Your task to perform on an android device: Add "dell xps" to the cart on amazon.com Image 0: 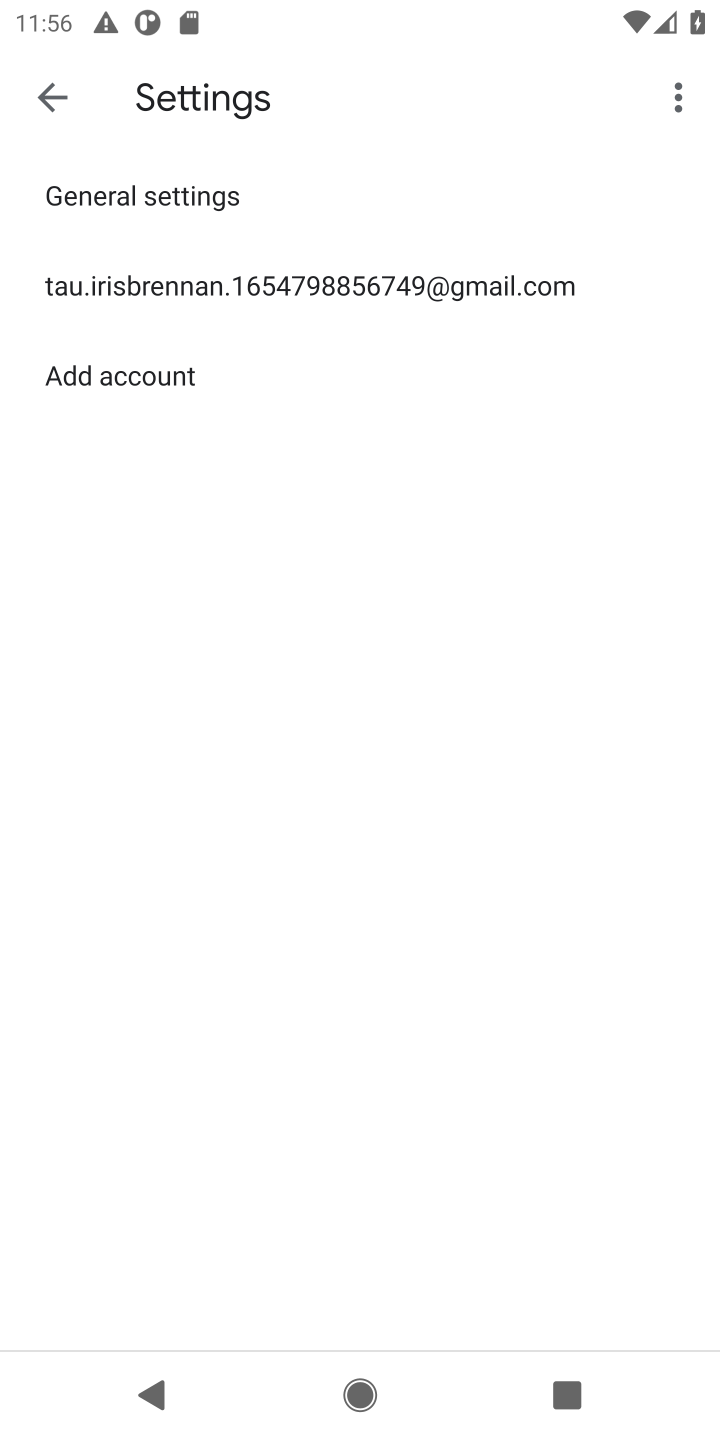
Step 0: press back button
Your task to perform on an android device: Add "dell xps" to the cart on amazon.com Image 1: 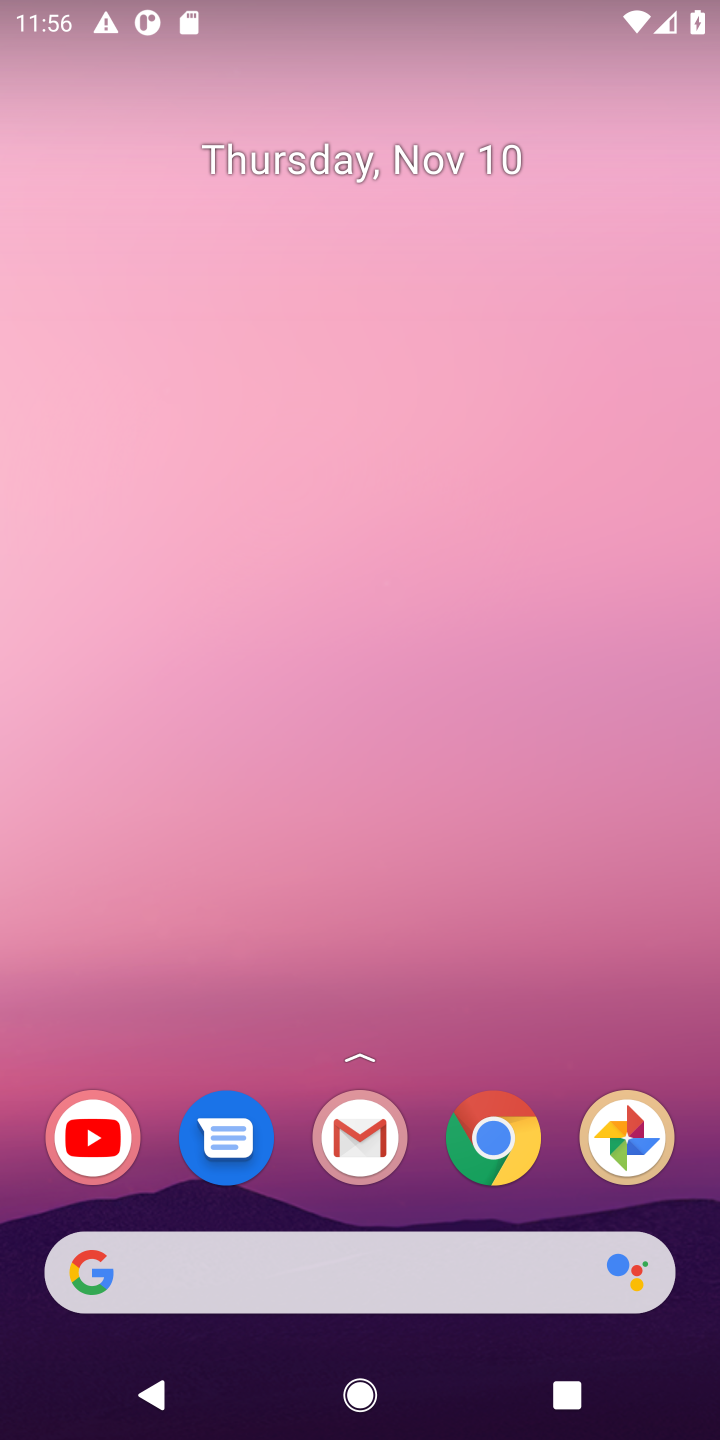
Step 1: click (470, 1137)
Your task to perform on an android device: Add "dell xps" to the cart on amazon.com Image 2: 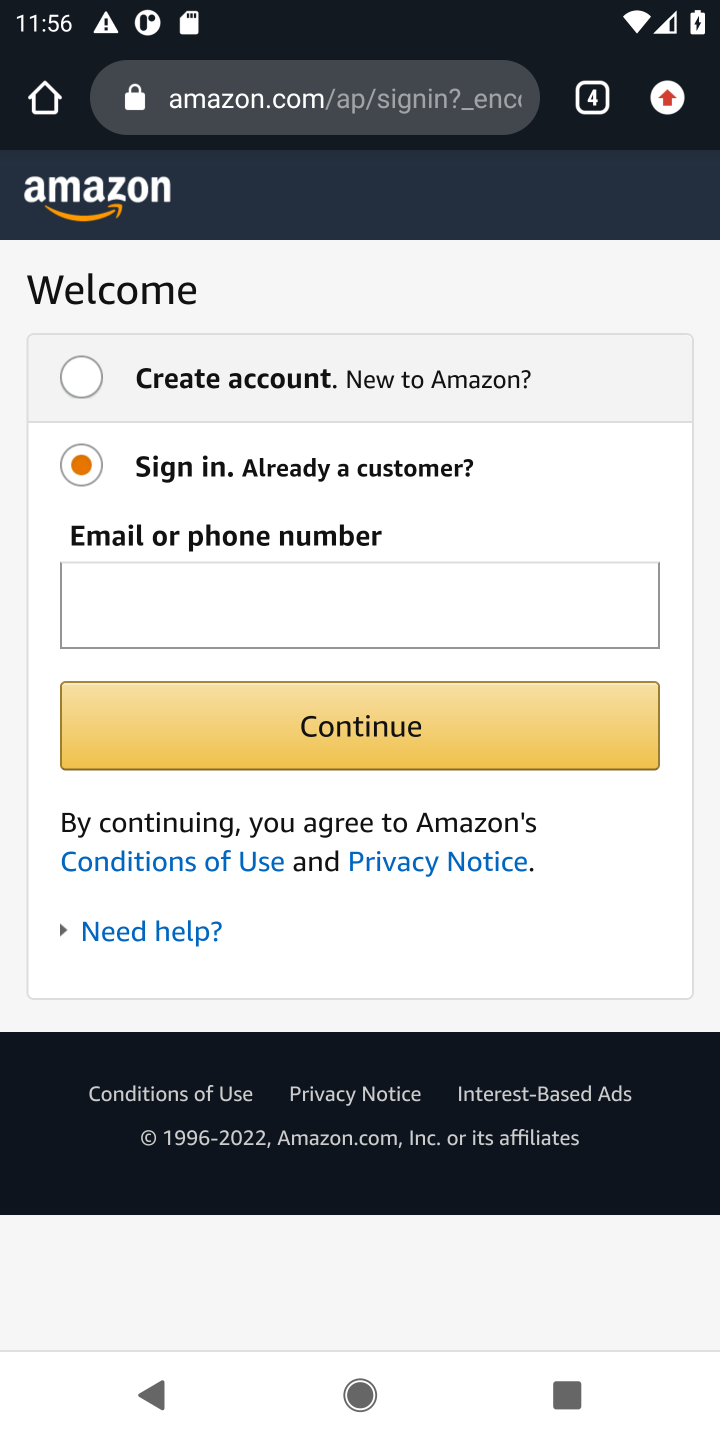
Step 2: press back button
Your task to perform on an android device: Add "dell xps" to the cart on amazon.com Image 3: 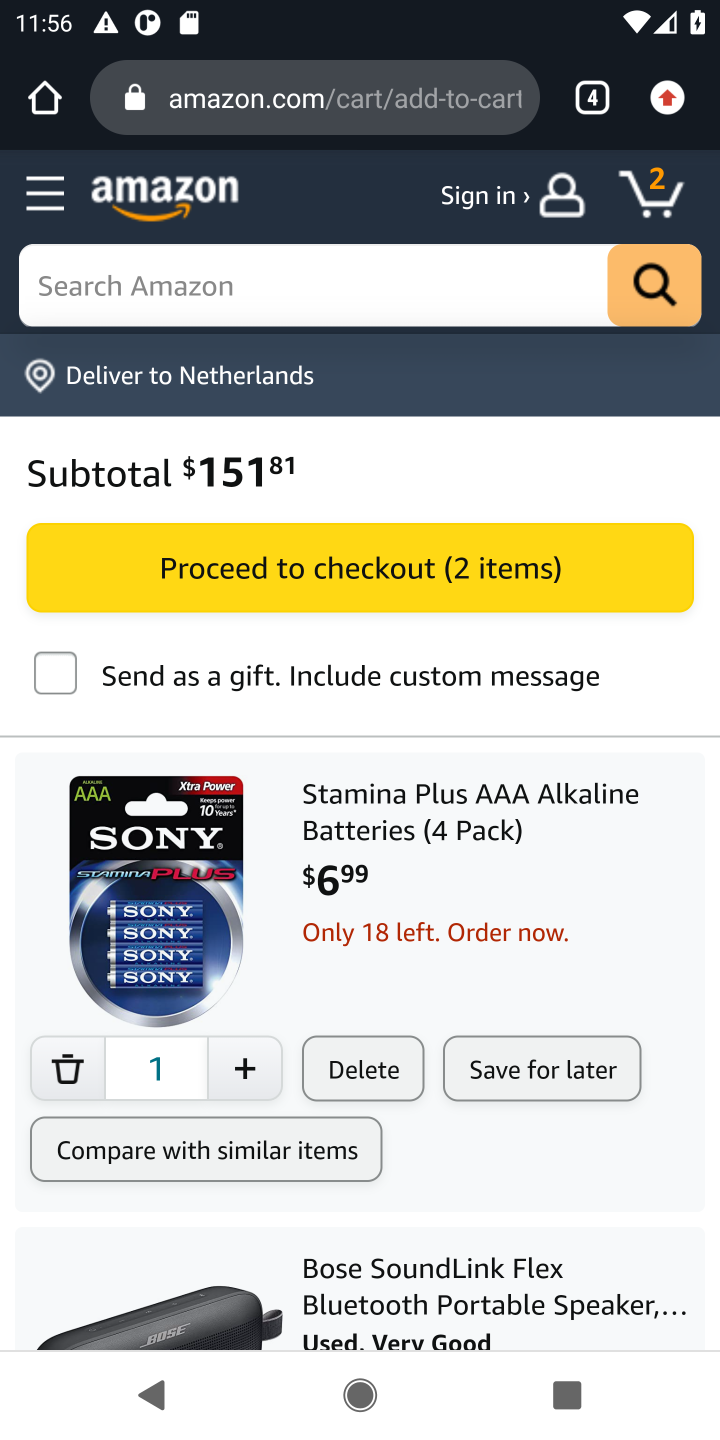
Step 3: click (220, 284)
Your task to perform on an android device: Add "dell xps" to the cart on amazon.com Image 4: 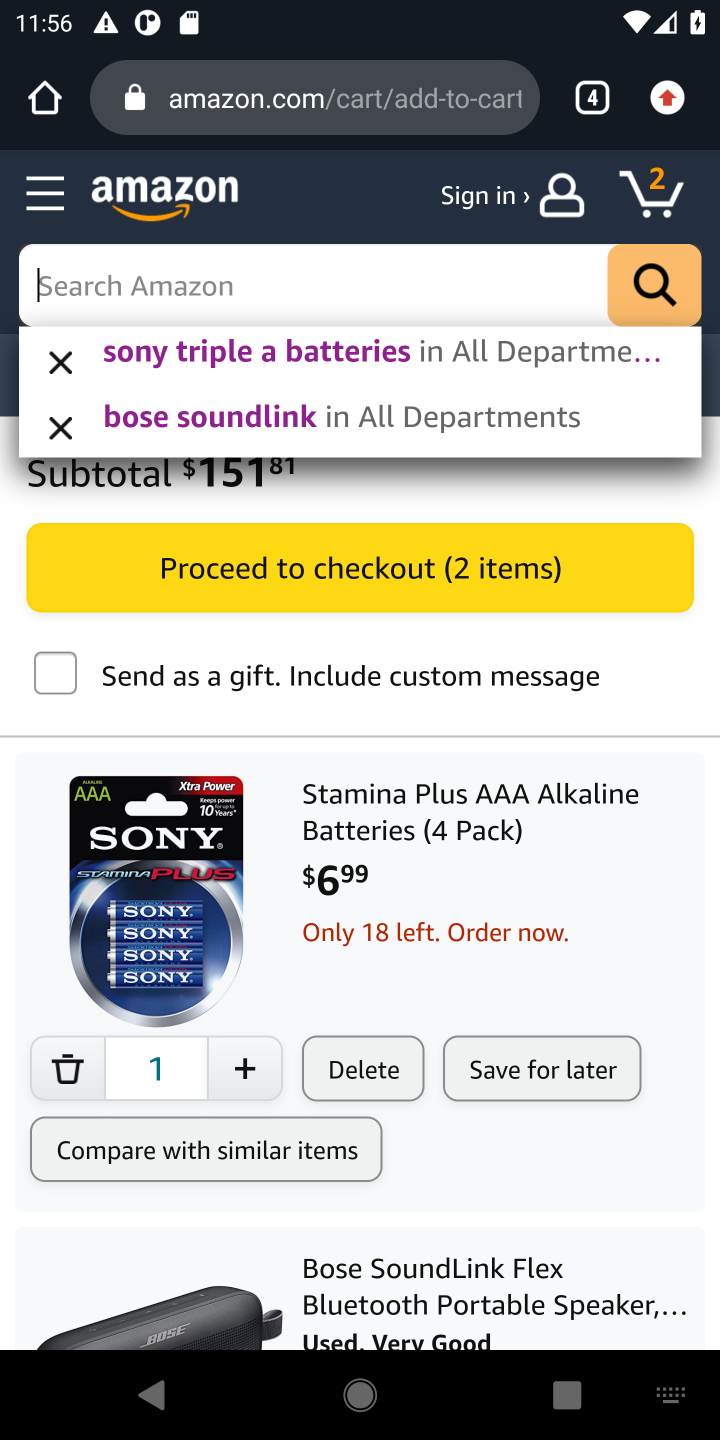
Step 4: type "dell xps"
Your task to perform on an android device: Add "dell xps" to the cart on amazon.com Image 5: 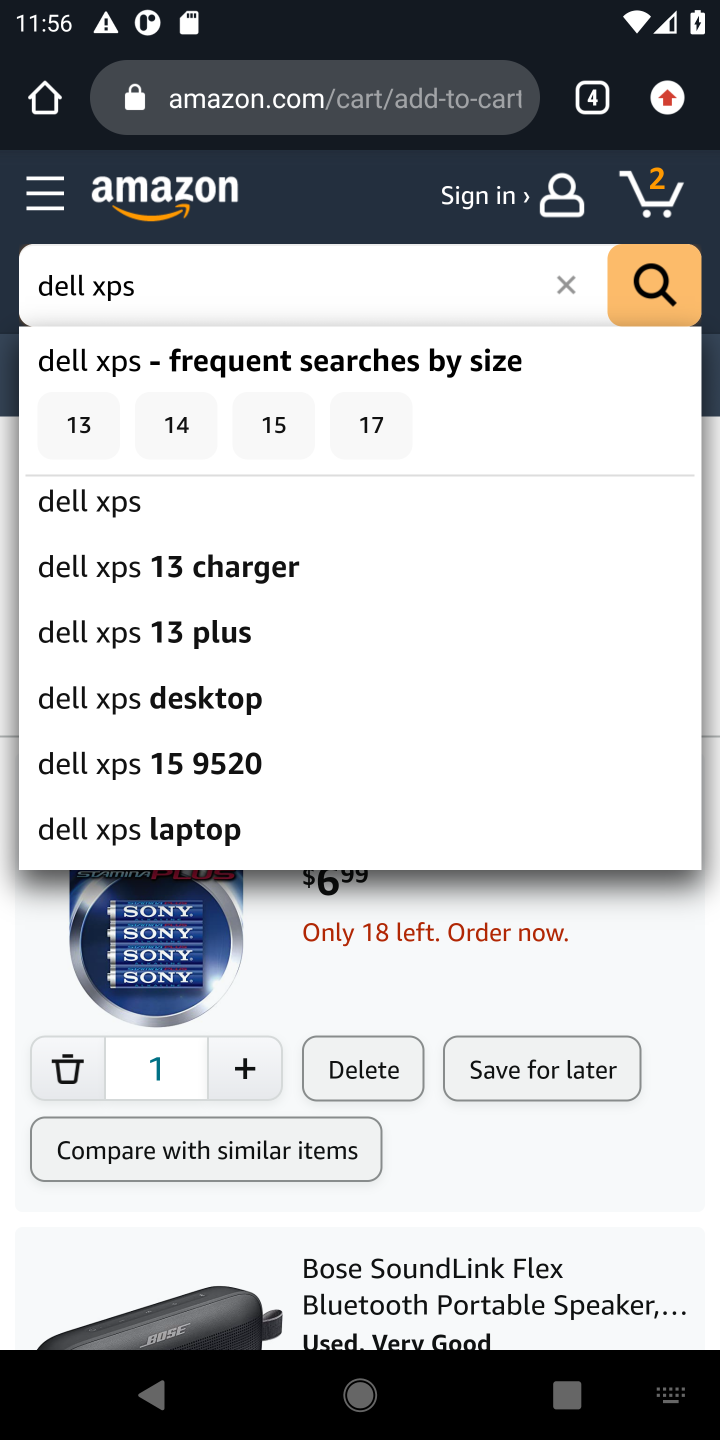
Step 5: click (99, 492)
Your task to perform on an android device: Add "dell xps" to the cart on amazon.com Image 6: 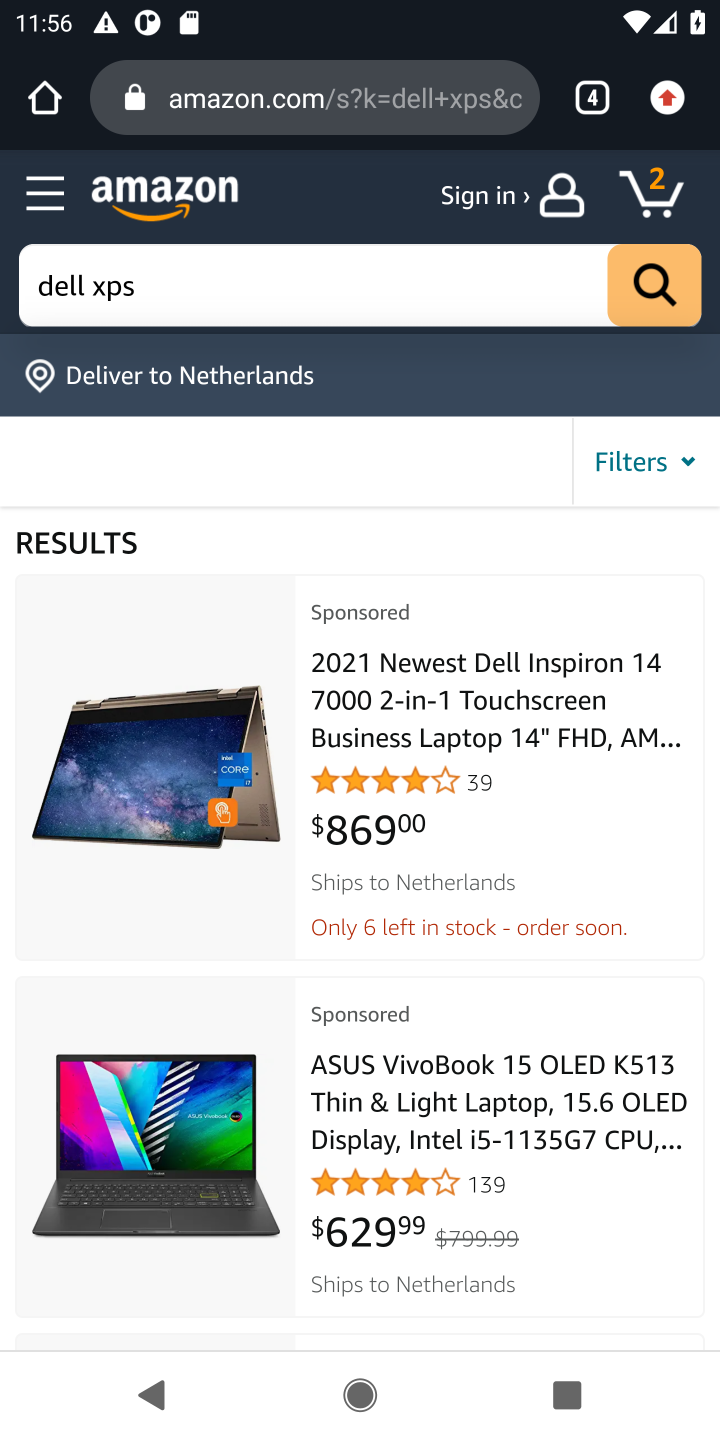
Step 6: drag from (454, 1226) to (575, 486)
Your task to perform on an android device: Add "dell xps" to the cart on amazon.com Image 7: 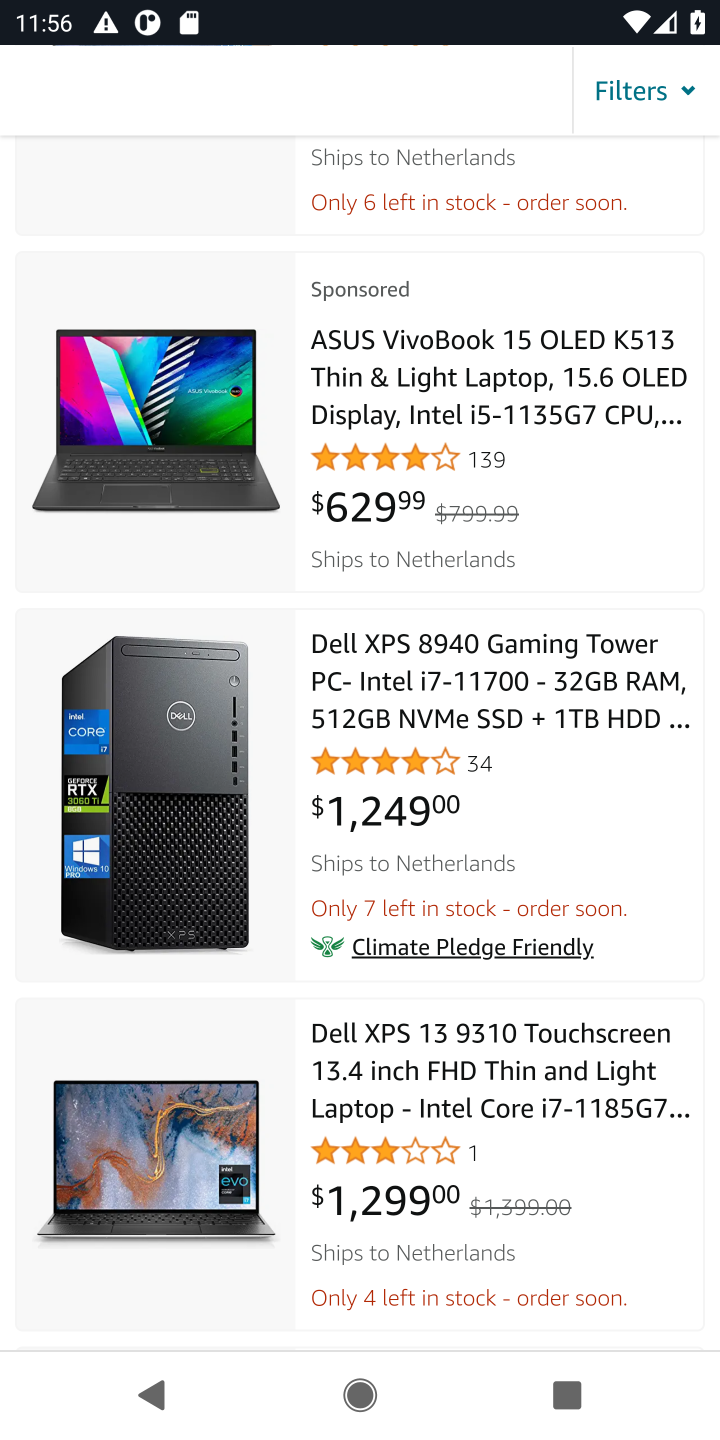
Step 7: click (499, 1047)
Your task to perform on an android device: Add "dell xps" to the cart on amazon.com Image 8: 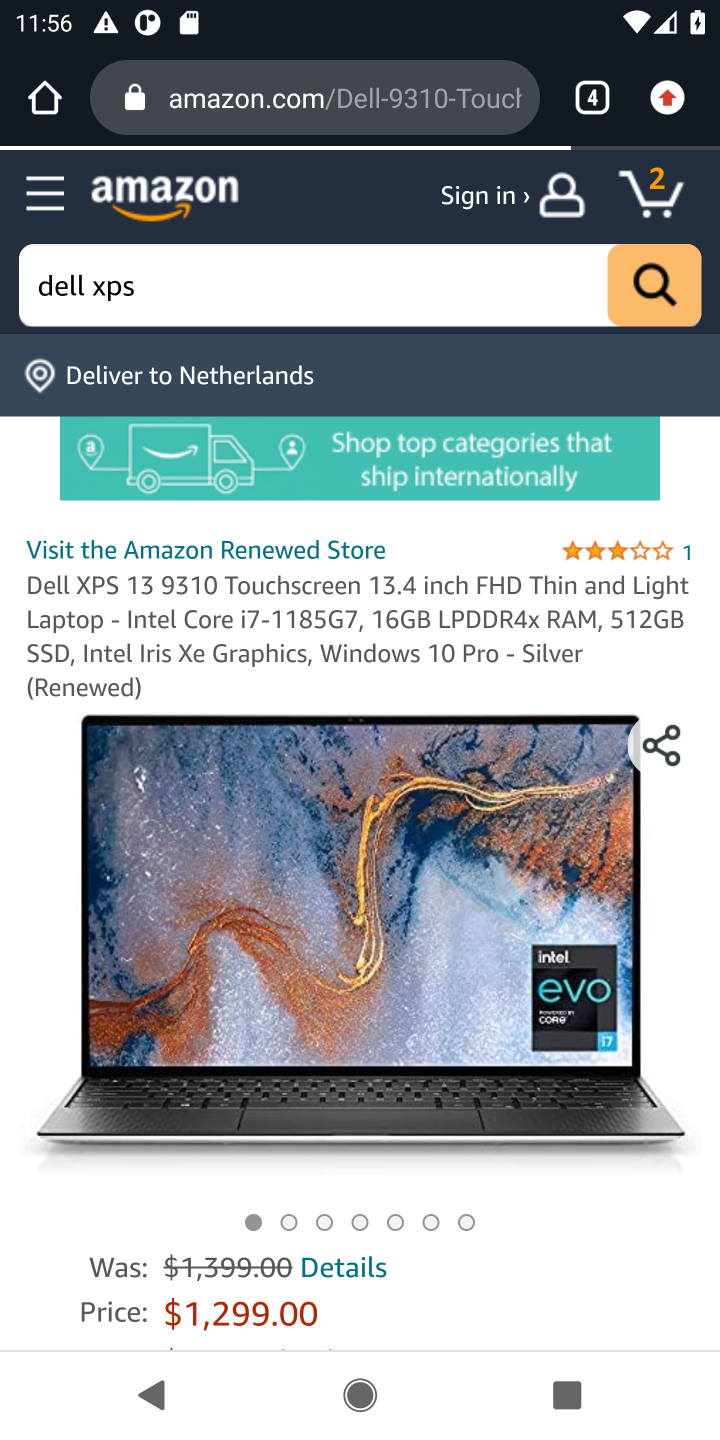
Step 8: drag from (565, 852) to (667, 506)
Your task to perform on an android device: Add "dell xps" to the cart on amazon.com Image 9: 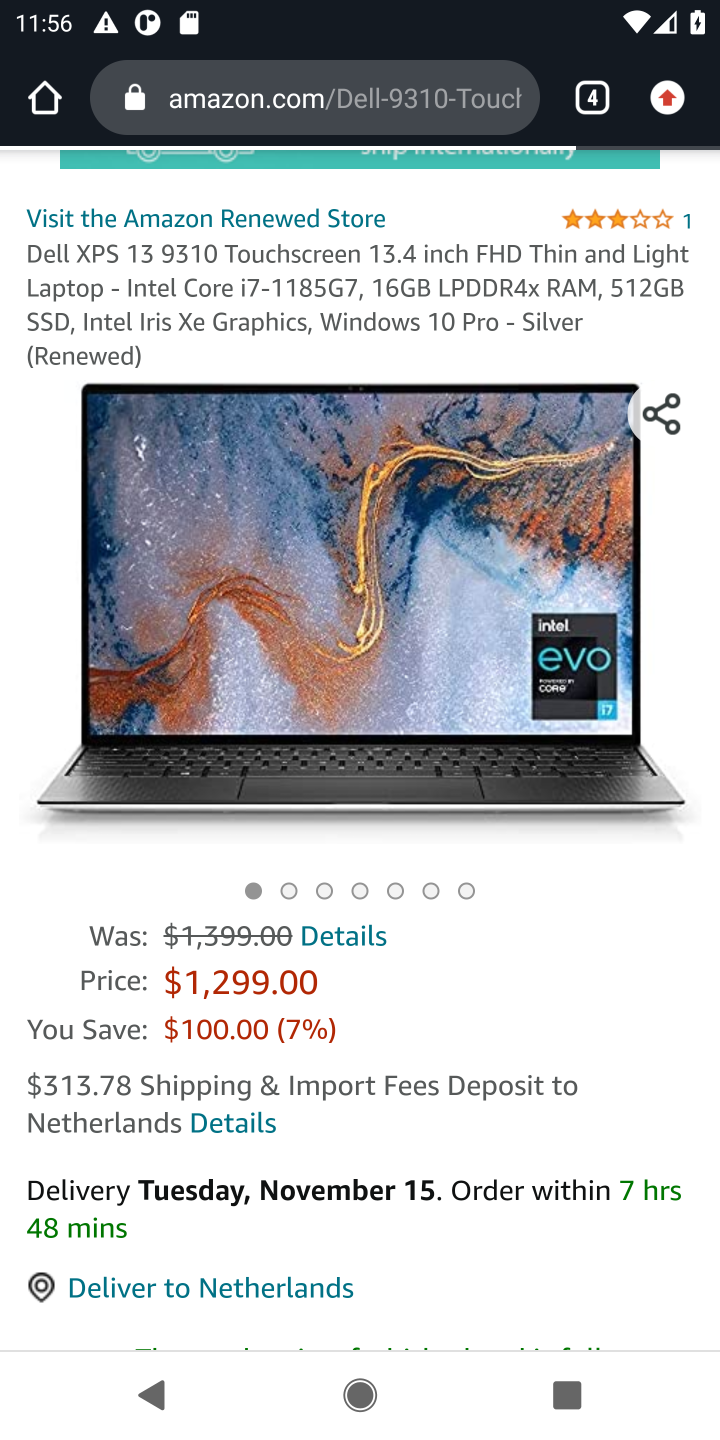
Step 9: drag from (526, 474) to (566, 141)
Your task to perform on an android device: Add "dell xps" to the cart on amazon.com Image 10: 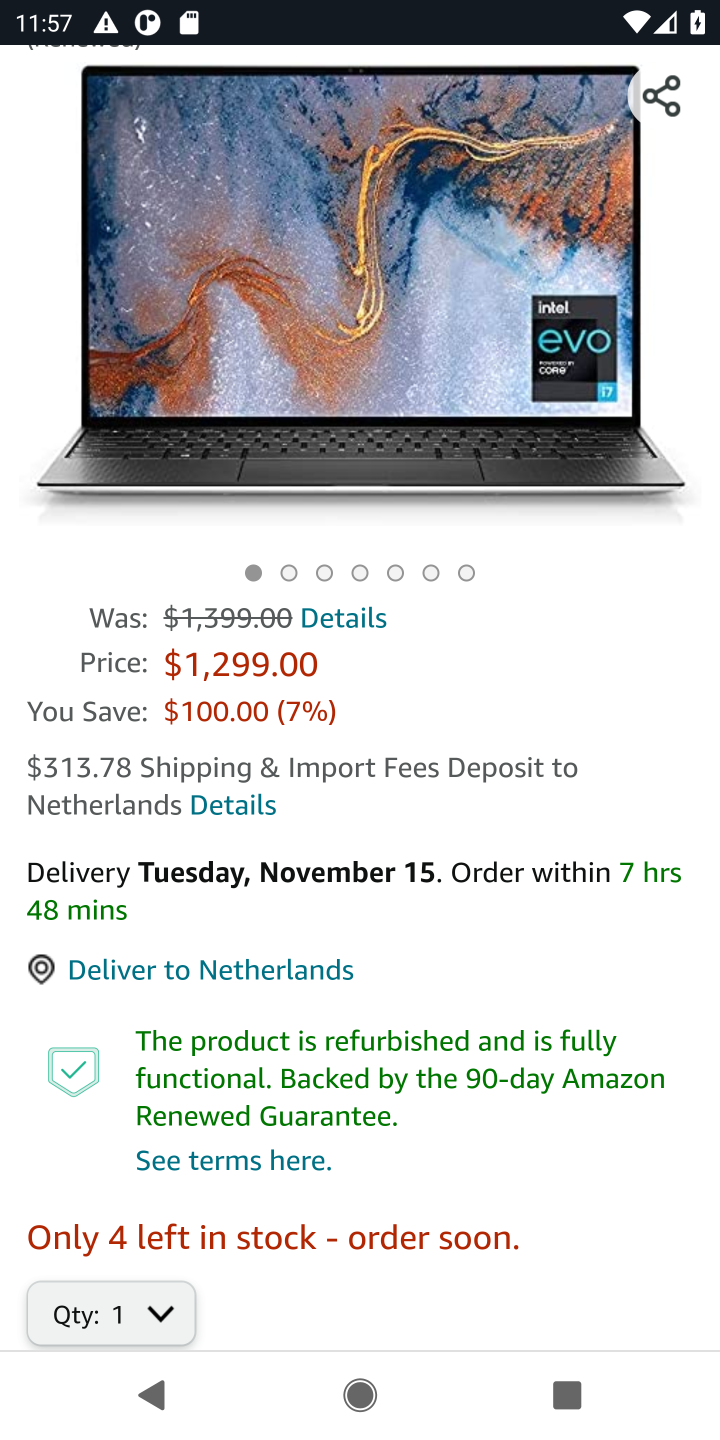
Step 10: drag from (361, 597) to (386, 518)
Your task to perform on an android device: Add "dell xps" to the cart on amazon.com Image 11: 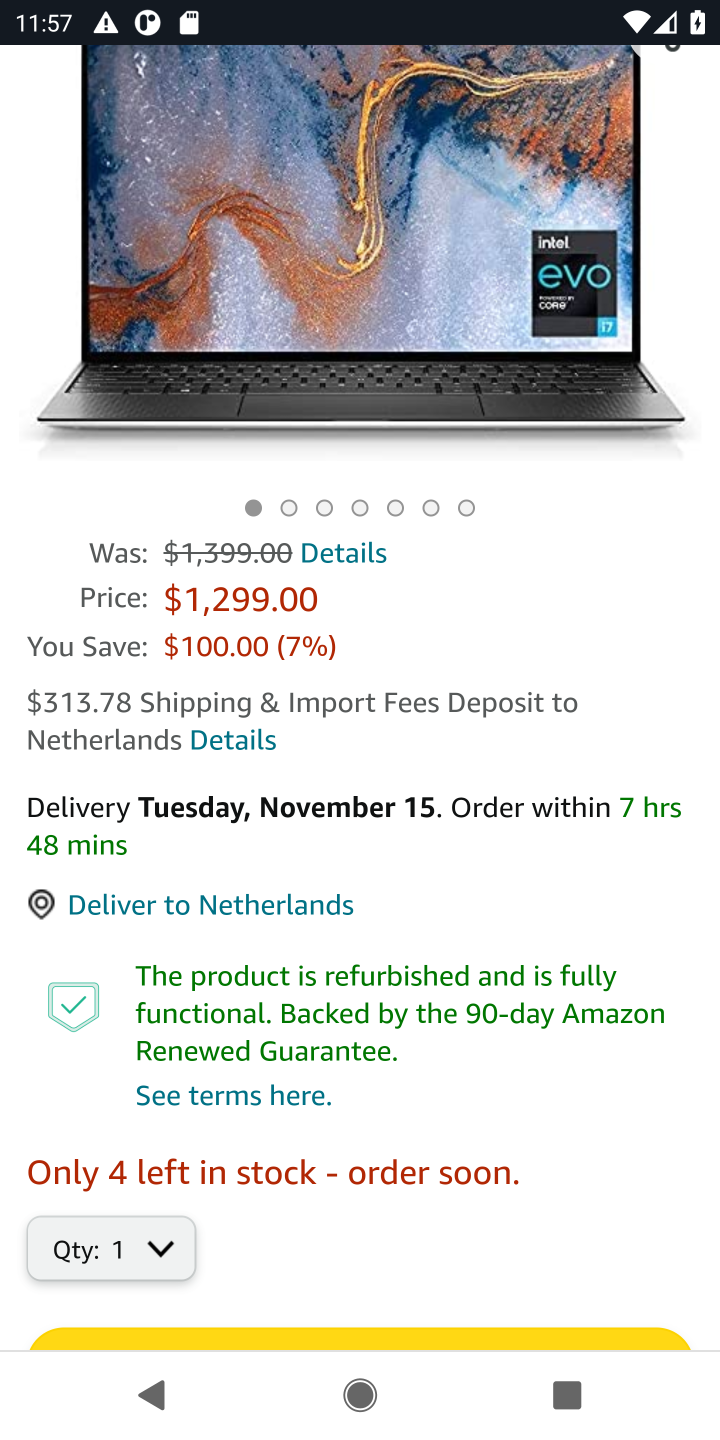
Step 11: click (372, 479)
Your task to perform on an android device: Add "dell xps" to the cart on amazon.com Image 12: 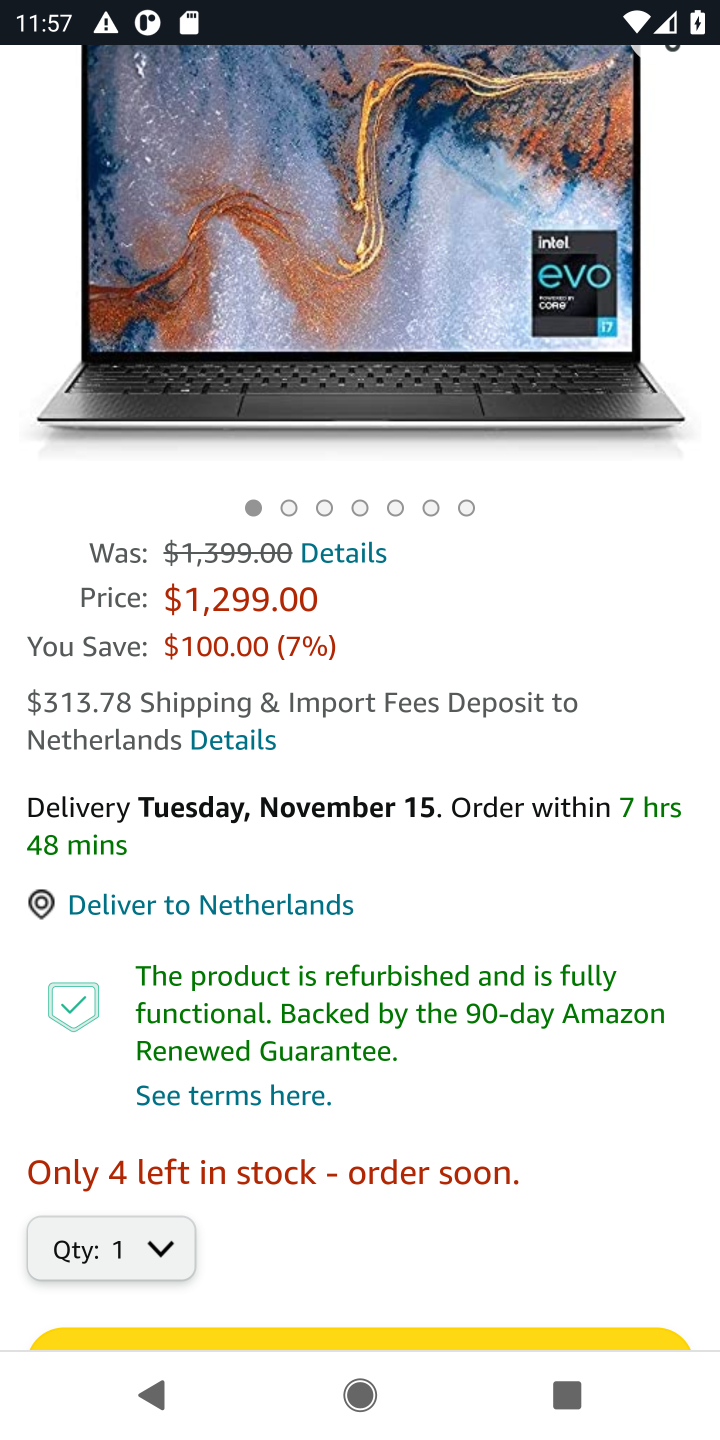
Step 12: drag from (430, 1126) to (526, 711)
Your task to perform on an android device: Add "dell xps" to the cart on amazon.com Image 13: 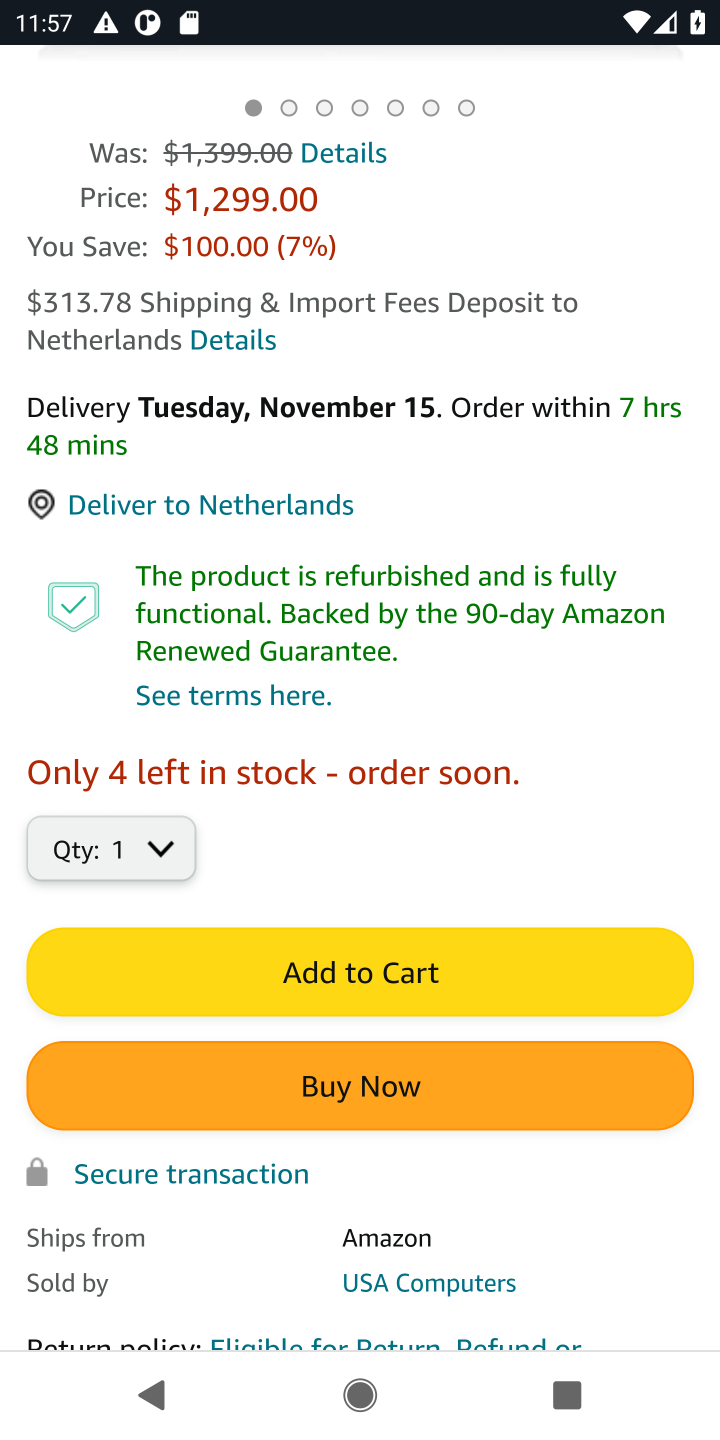
Step 13: click (367, 967)
Your task to perform on an android device: Add "dell xps" to the cart on amazon.com Image 14: 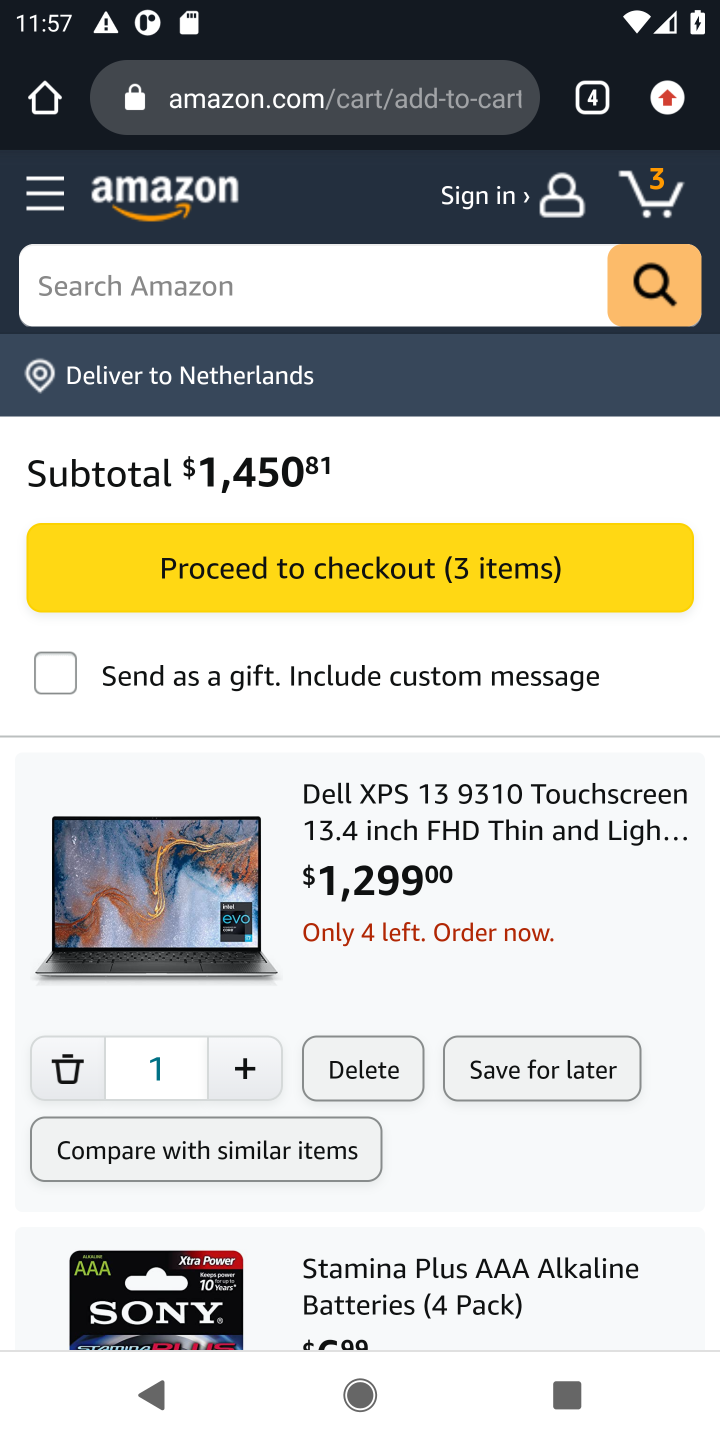
Step 14: task complete